Your task to perform on an android device: Open calendar and show me the third week of next month Image 0: 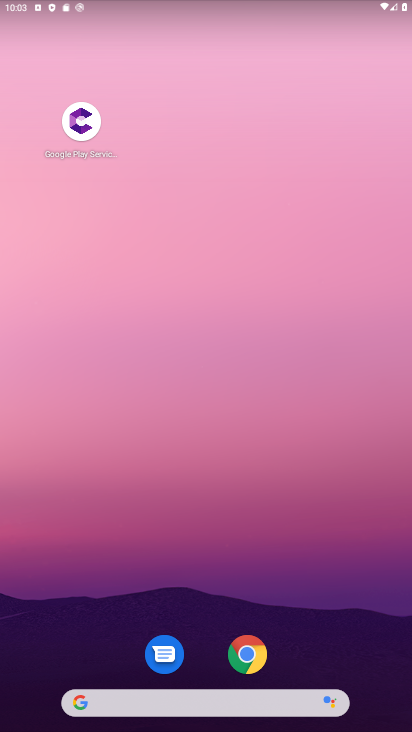
Step 0: drag from (203, 659) to (235, 15)
Your task to perform on an android device: Open calendar and show me the third week of next month Image 1: 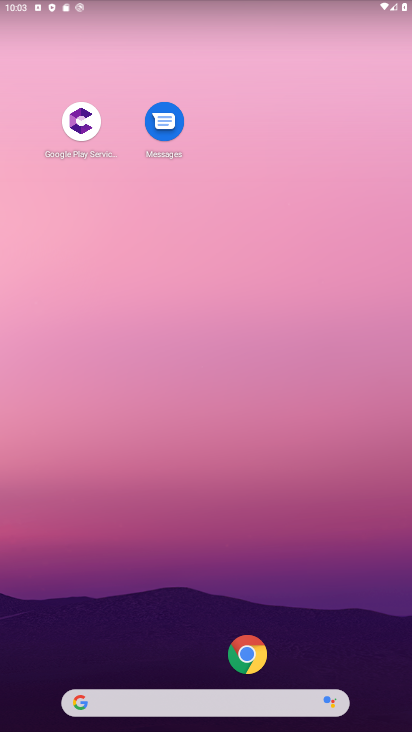
Step 1: drag from (181, 646) to (202, 159)
Your task to perform on an android device: Open calendar and show me the third week of next month Image 2: 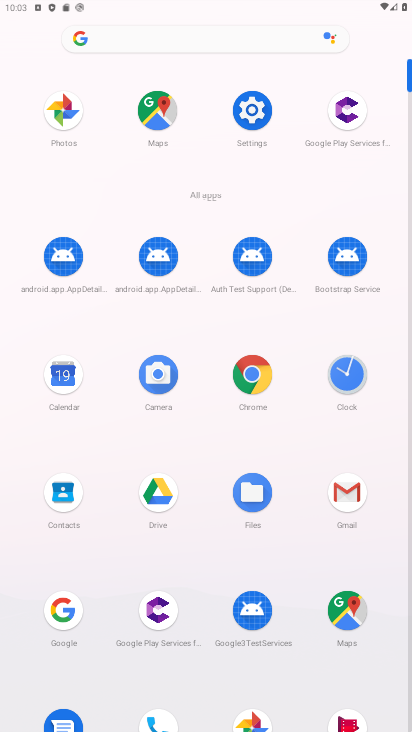
Step 2: click (75, 372)
Your task to perform on an android device: Open calendar and show me the third week of next month Image 3: 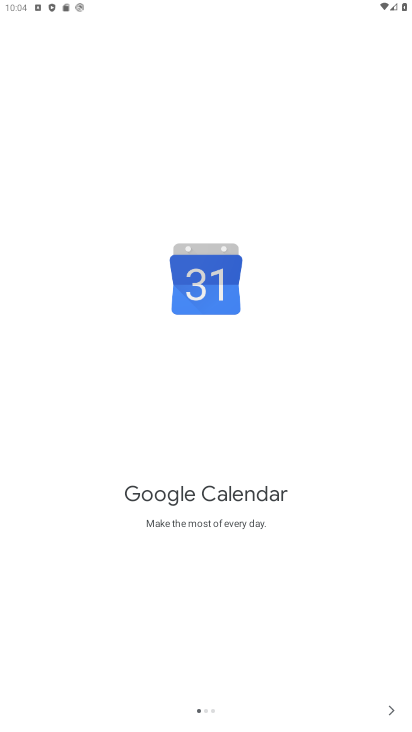
Step 3: click (398, 720)
Your task to perform on an android device: Open calendar and show me the third week of next month Image 4: 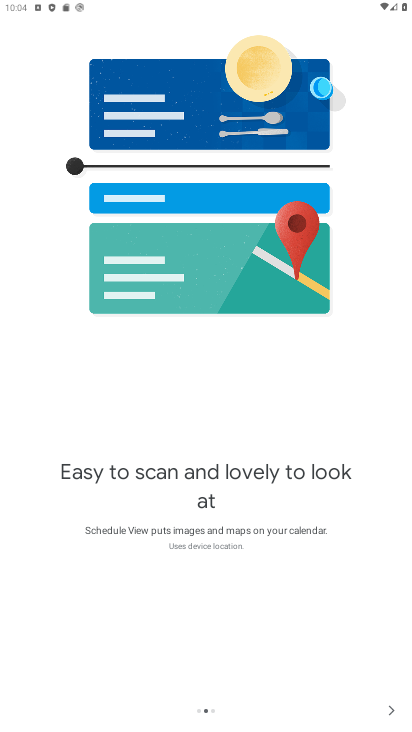
Step 4: click (398, 720)
Your task to perform on an android device: Open calendar and show me the third week of next month Image 5: 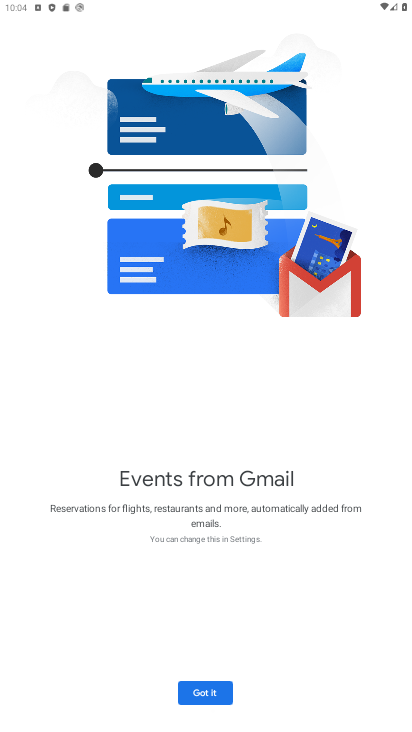
Step 5: click (398, 720)
Your task to perform on an android device: Open calendar and show me the third week of next month Image 6: 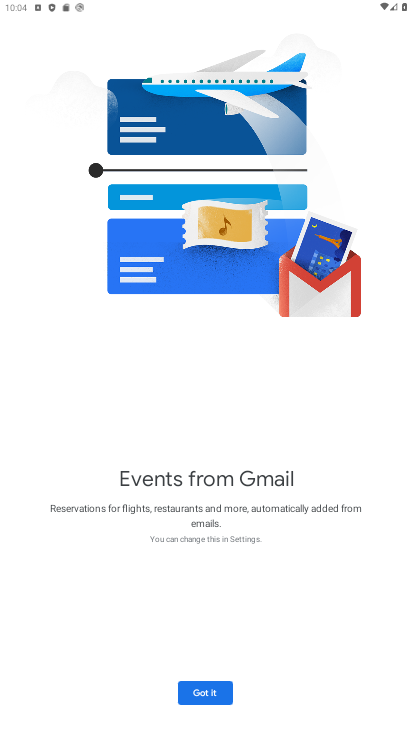
Step 6: click (186, 697)
Your task to perform on an android device: Open calendar and show me the third week of next month Image 7: 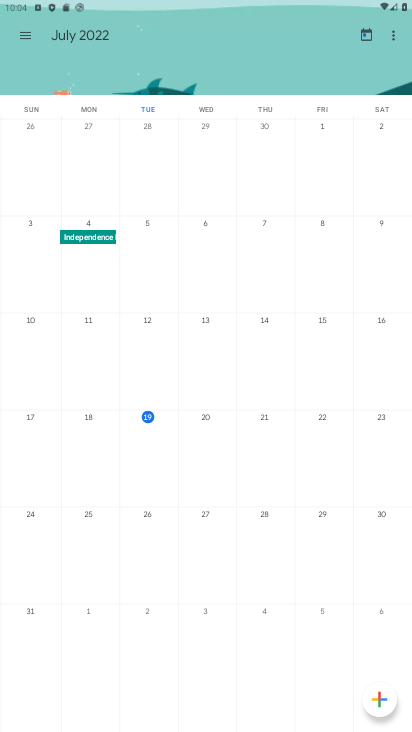
Step 7: click (101, 39)
Your task to perform on an android device: Open calendar and show me the third week of next month Image 8: 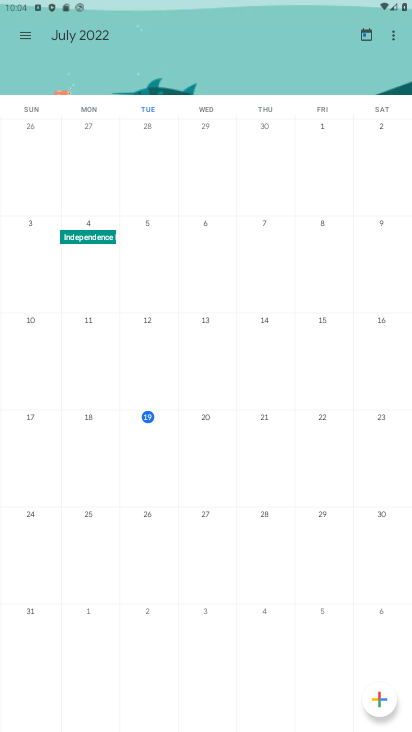
Step 8: click (109, 44)
Your task to perform on an android device: Open calendar and show me the third week of next month Image 9: 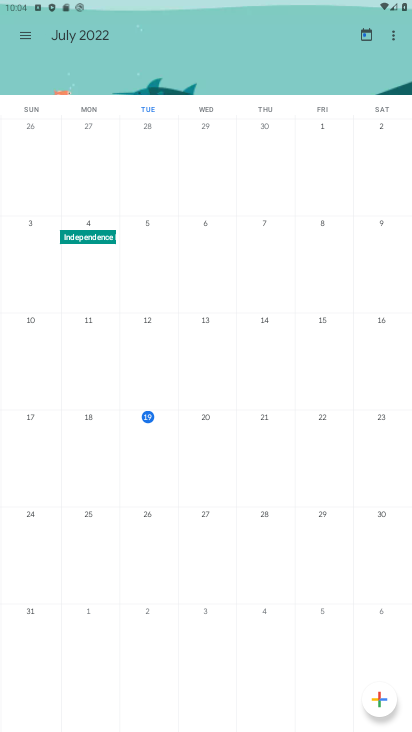
Step 9: click (25, 27)
Your task to perform on an android device: Open calendar and show me the third week of next month Image 10: 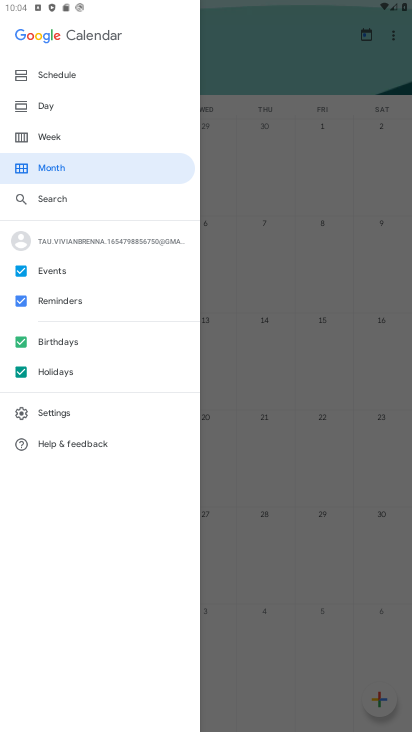
Step 10: click (65, 133)
Your task to perform on an android device: Open calendar and show me the third week of next month Image 11: 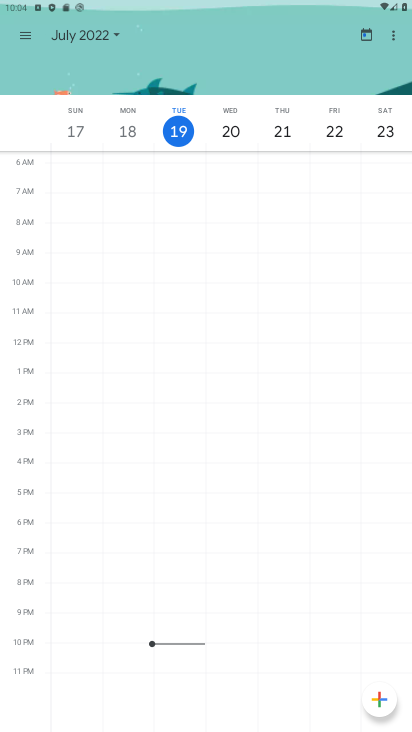
Step 11: click (86, 47)
Your task to perform on an android device: Open calendar and show me the third week of next month Image 12: 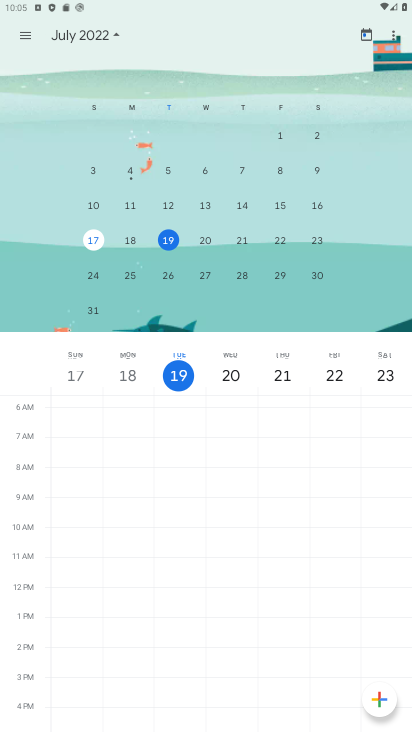
Step 12: drag from (375, 279) to (52, 263)
Your task to perform on an android device: Open calendar and show me the third week of next month Image 13: 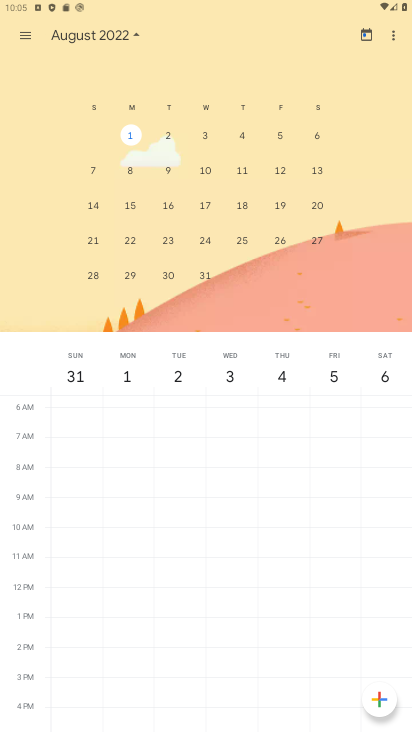
Step 13: click (124, 202)
Your task to perform on an android device: Open calendar and show me the third week of next month Image 14: 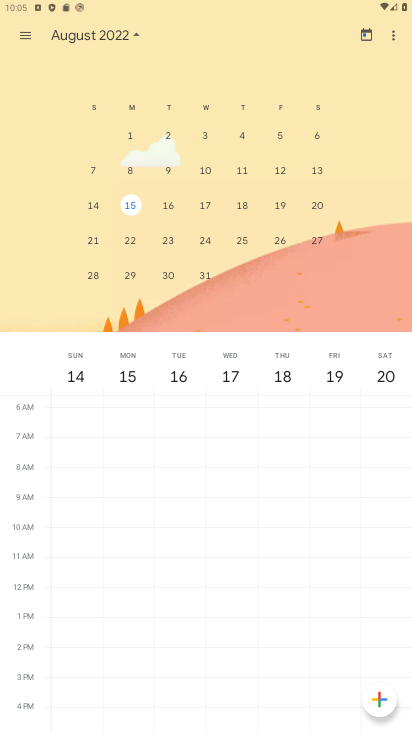
Step 14: task complete